Your task to perform on an android device: Open Youtube and go to the subscriptions tab Image 0: 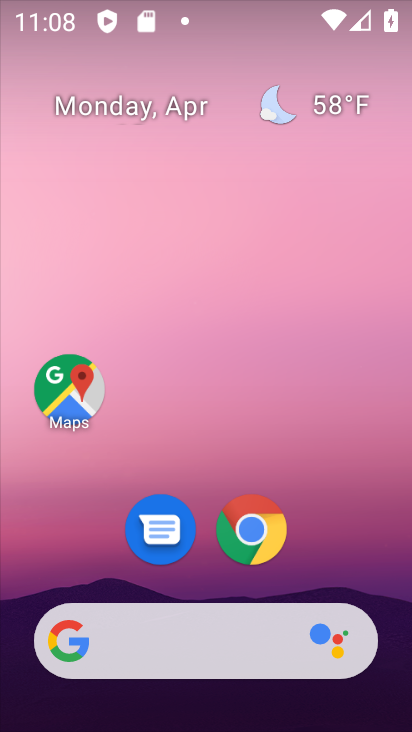
Step 0: drag from (364, 596) to (246, 68)
Your task to perform on an android device: Open Youtube and go to the subscriptions tab Image 1: 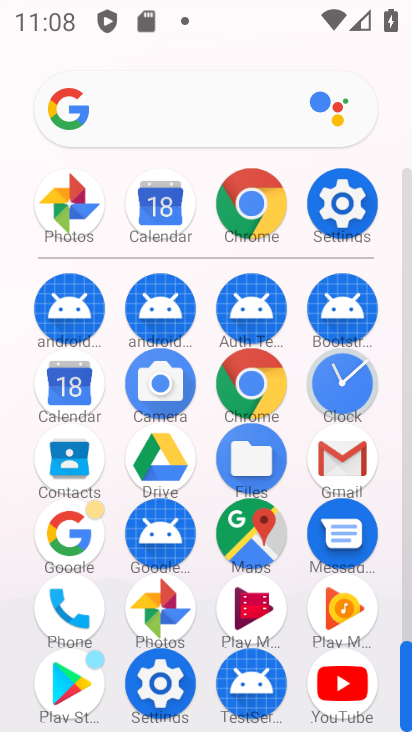
Step 1: click (331, 691)
Your task to perform on an android device: Open Youtube and go to the subscriptions tab Image 2: 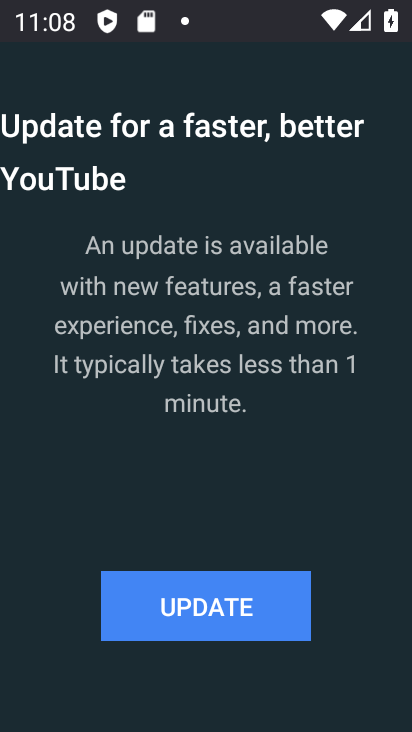
Step 2: click (186, 613)
Your task to perform on an android device: Open Youtube and go to the subscriptions tab Image 3: 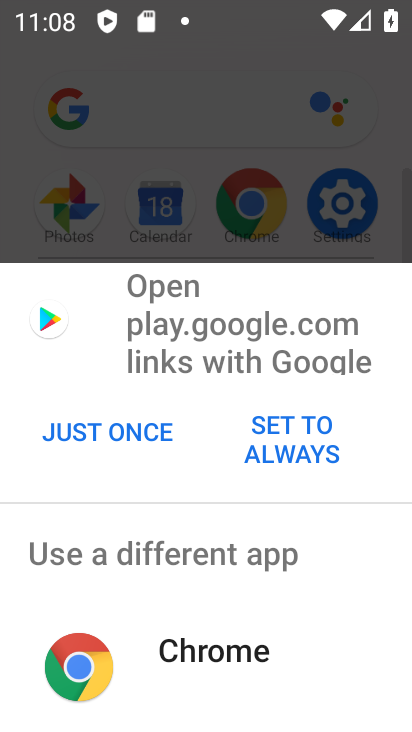
Step 3: click (107, 432)
Your task to perform on an android device: Open Youtube and go to the subscriptions tab Image 4: 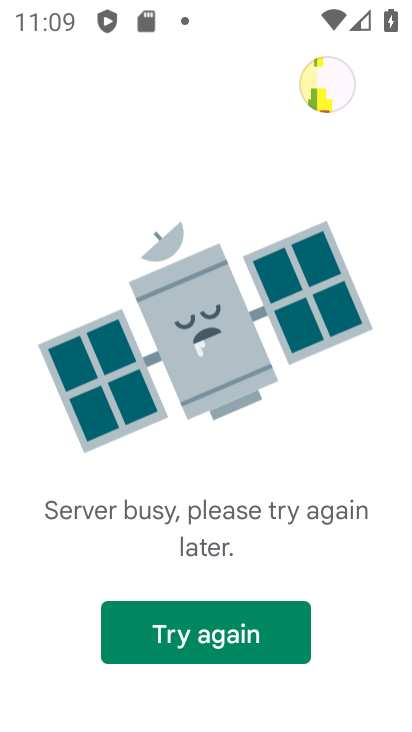
Step 4: task complete